Your task to perform on an android device: install app "ColorNote Notepad Notes" Image 0: 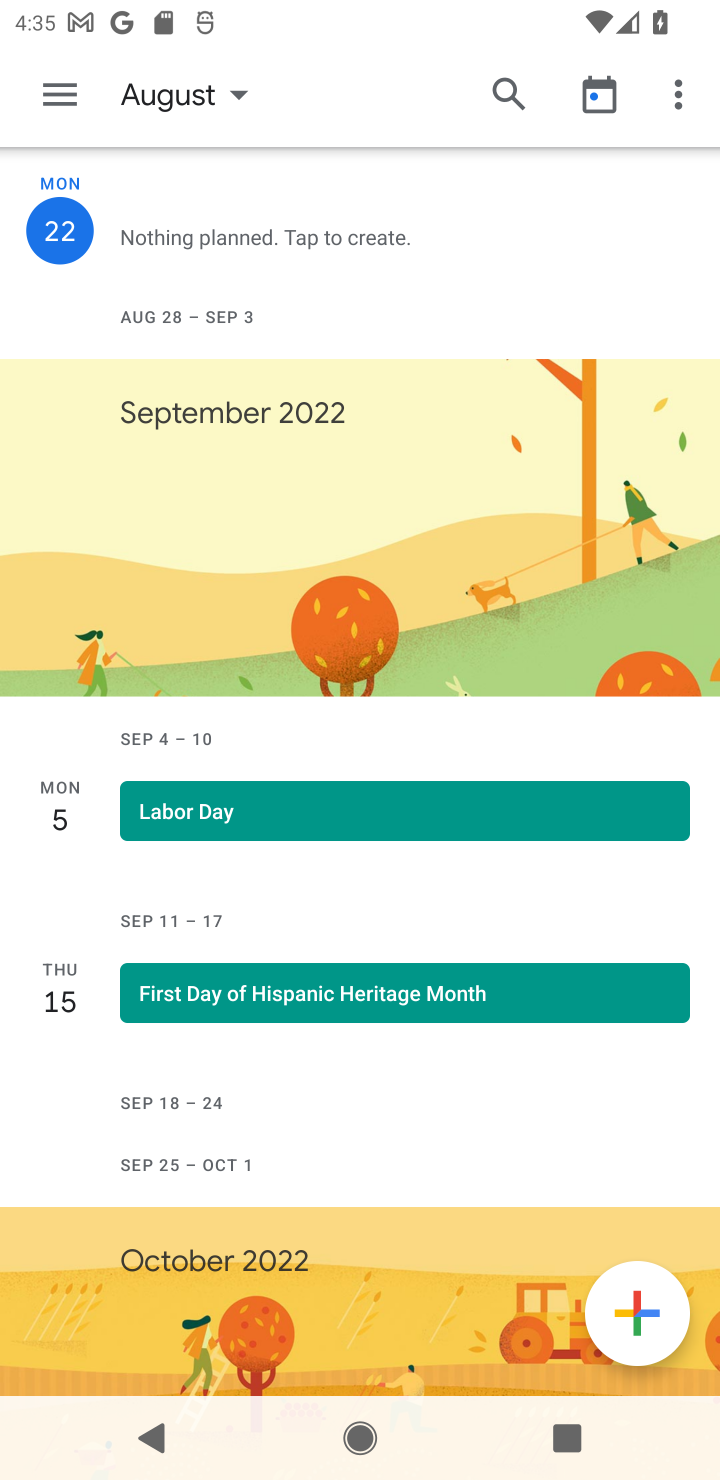
Step 0: press home button
Your task to perform on an android device: install app "ColorNote Notepad Notes" Image 1: 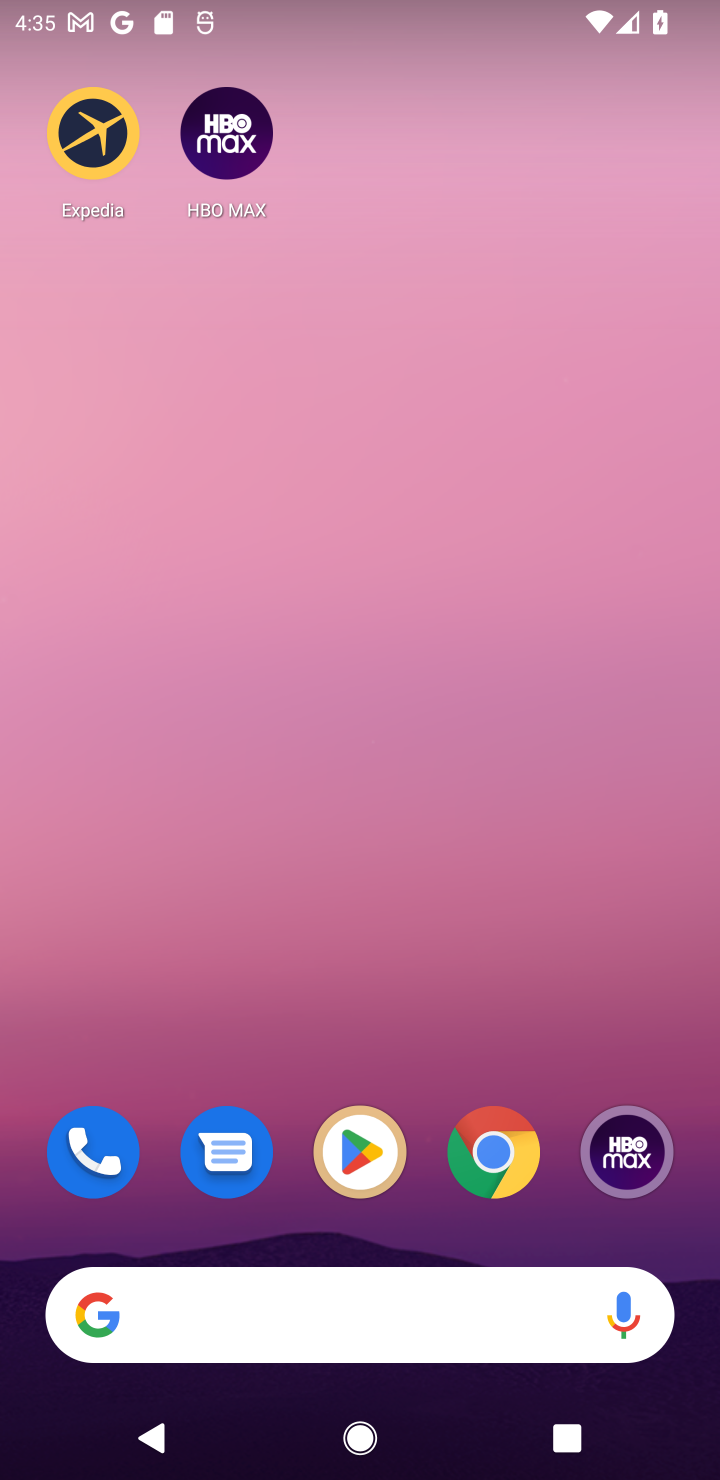
Step 1: click (337, 1172)
Your task to perform on an android device: install app "ColorNote Notepad Notes" Image 2: 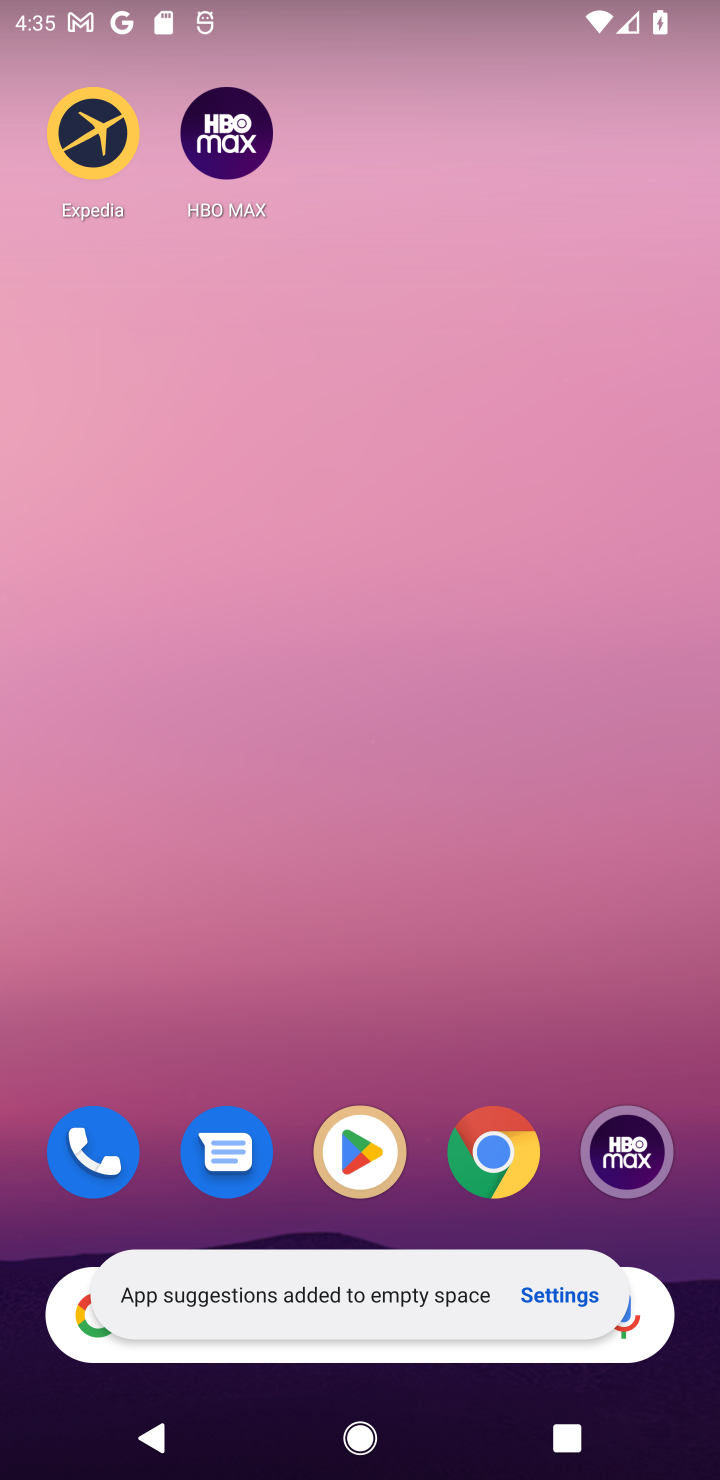
Step 2: click (376, 1160)
Your task to perform on an android device: install app "ColorNote Notepad Notes" Image 3: 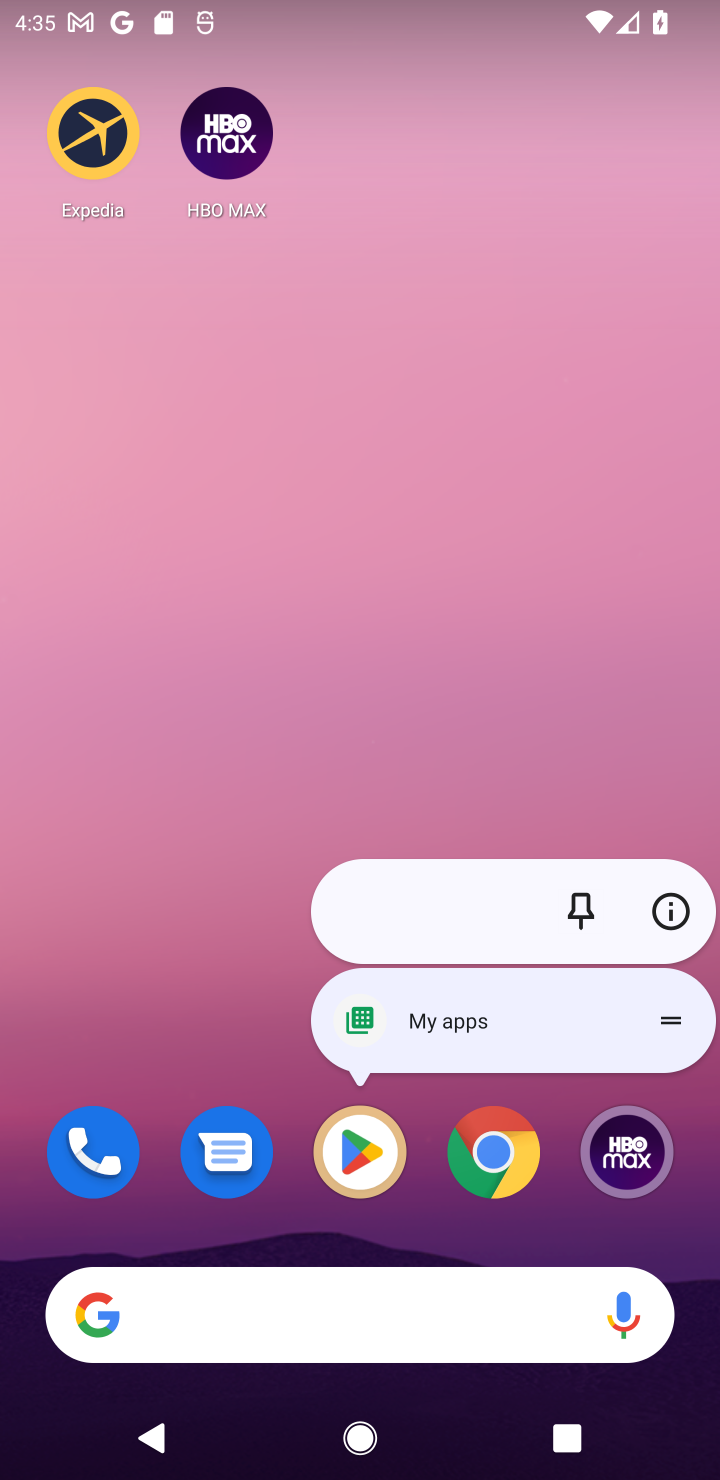
Step 3: click (408, 1160)
Your task to perform on an android device: install app "ColorNote Notepad Notes" Image 4: 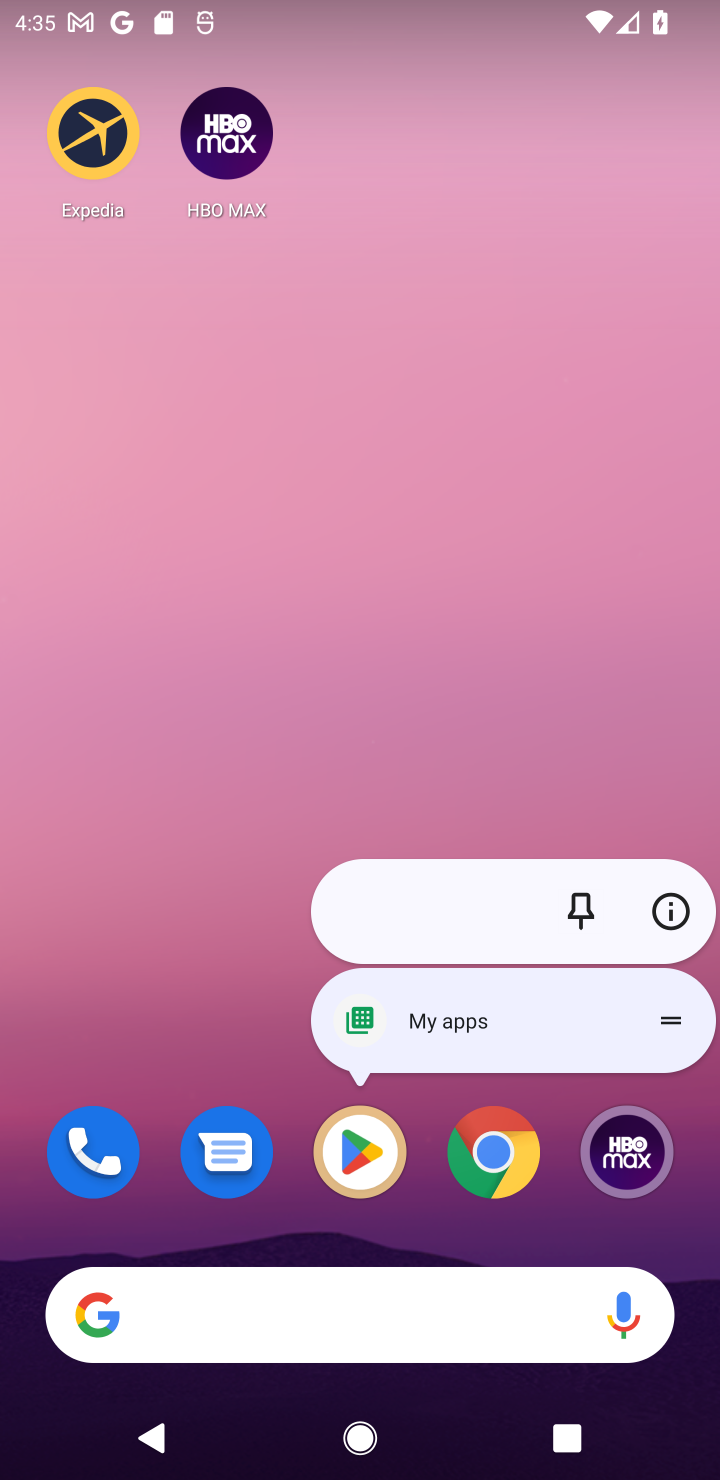
Step 4: click (372, 1182)
Your task to perform on an android device: install app "ColorNote Notepad Notes" Image 5: 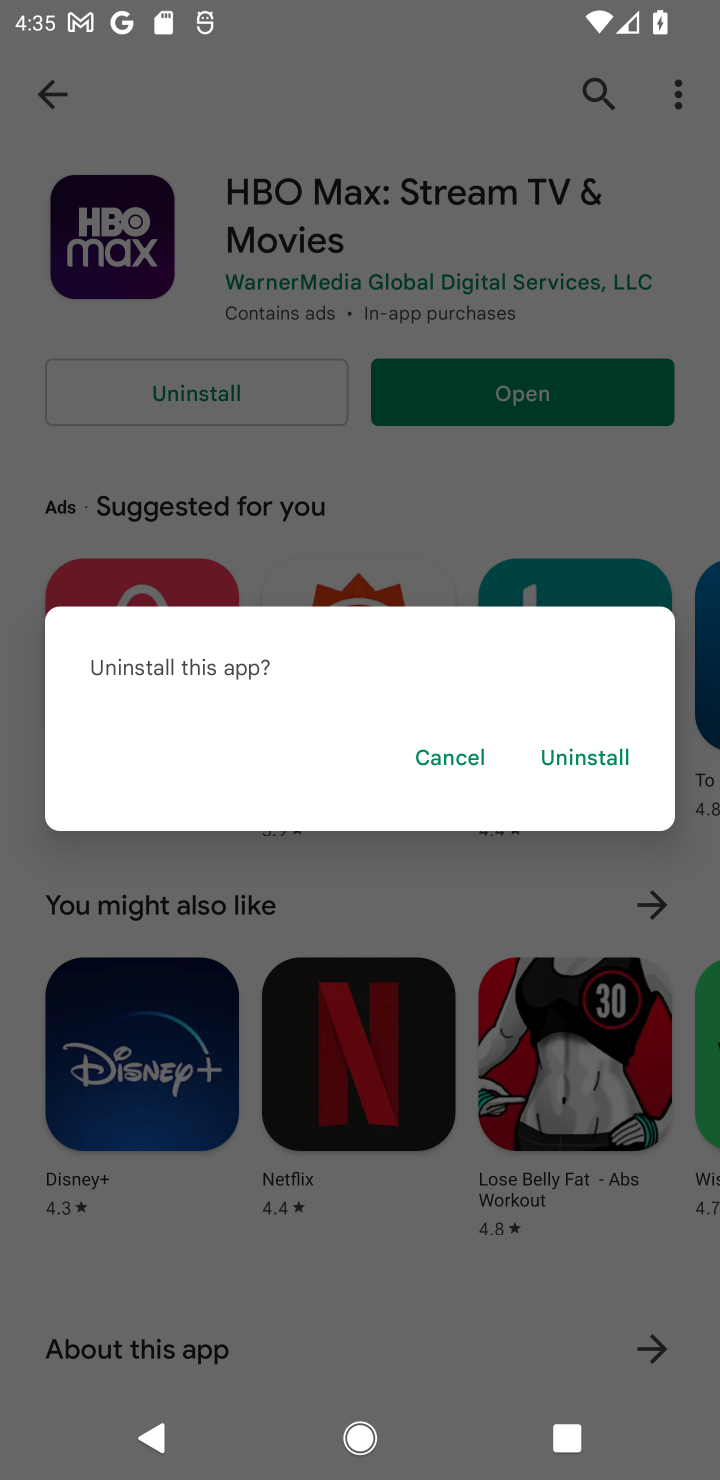
Step 5: click (454, 758)
Your task to perform on an android device: install app "ColorNote Notepad Notes" Image 6: 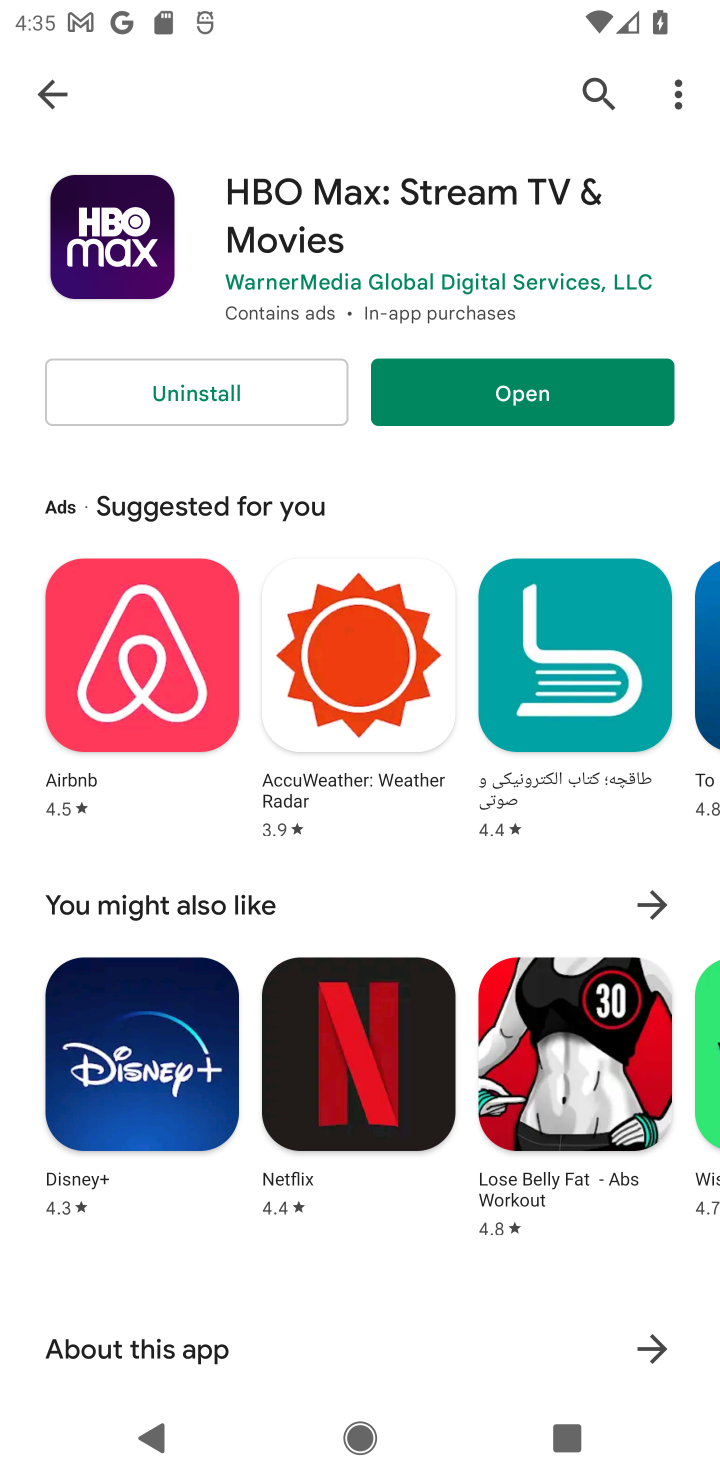
Step 6: click (36, 96)
Your task to perform on an android device: install app "ColorNote Notepad Notes" Image 7: 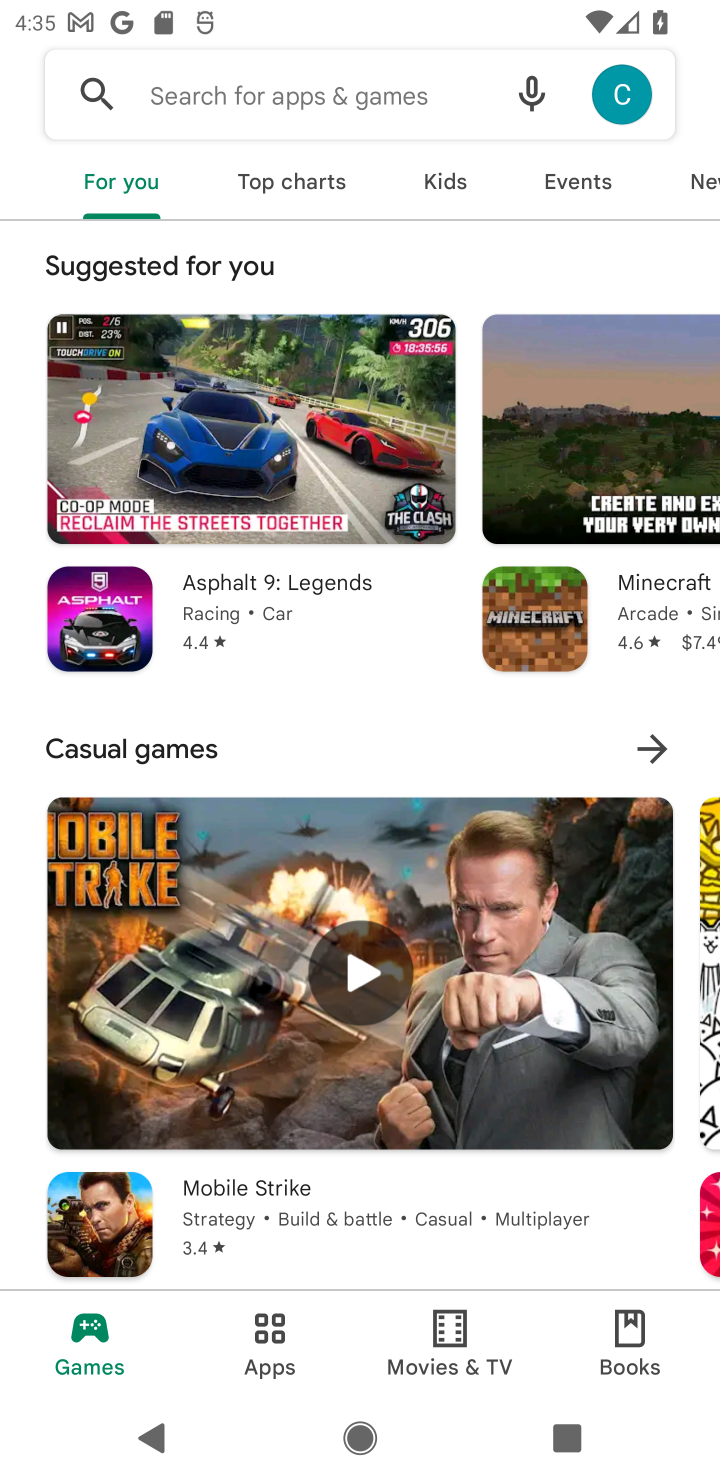
Step 7: click (147, 84)
Your task to perform on an android device: install app "ColorNote Notepad Notes" Image 8: 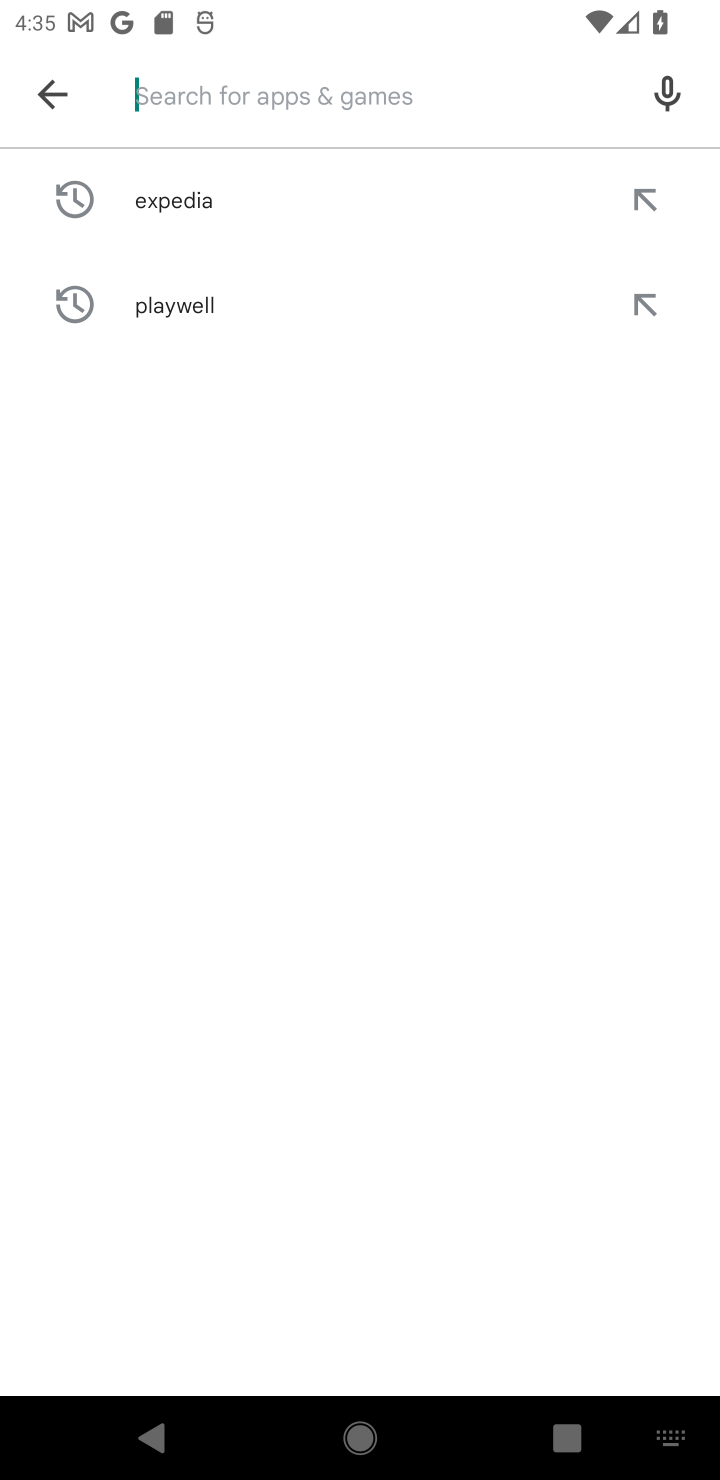
Step 8: type "ColorNote Notepad Notes"
Your task to perform on an android device: install app "ColorNote Notepad Notes" Image 9: 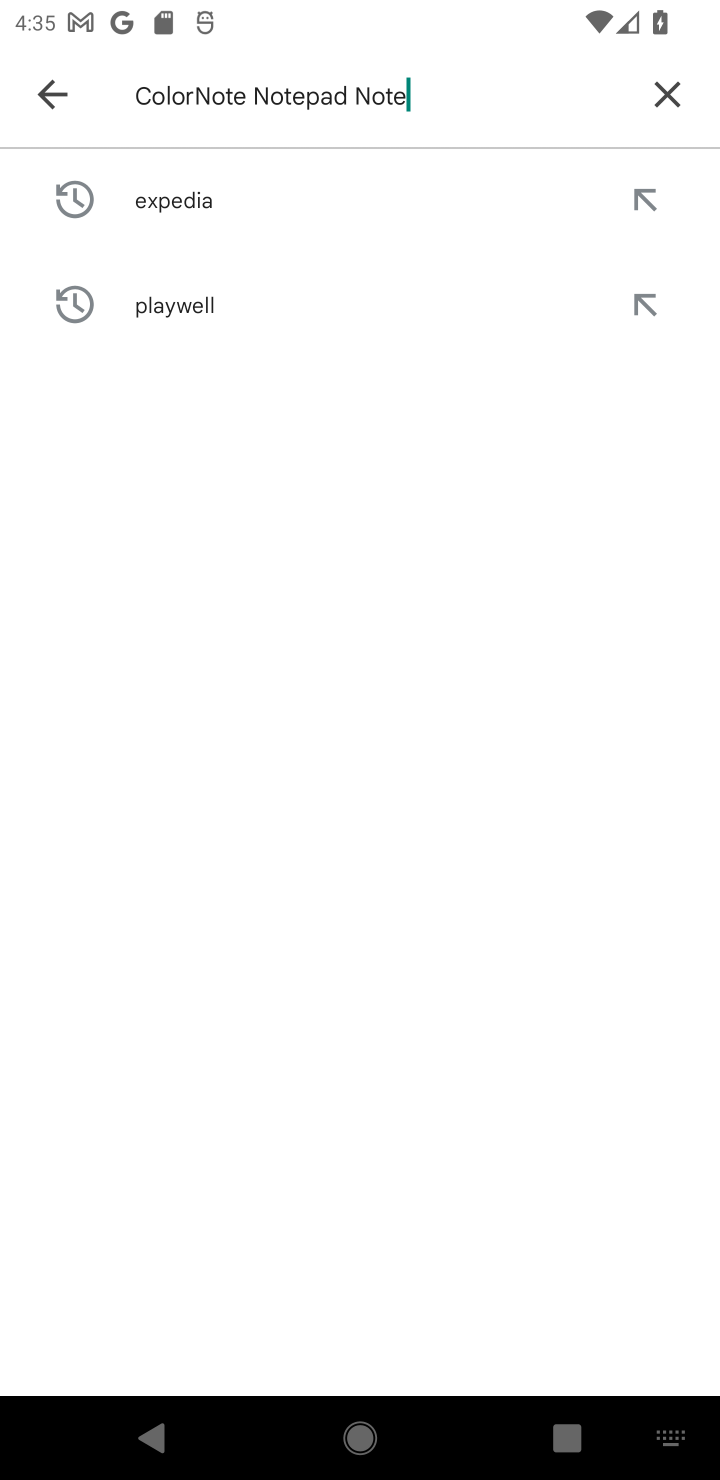
Step 9: type ""
Your task to perform on an android device: install app "ColorNote Notepad Notes" Image 10: 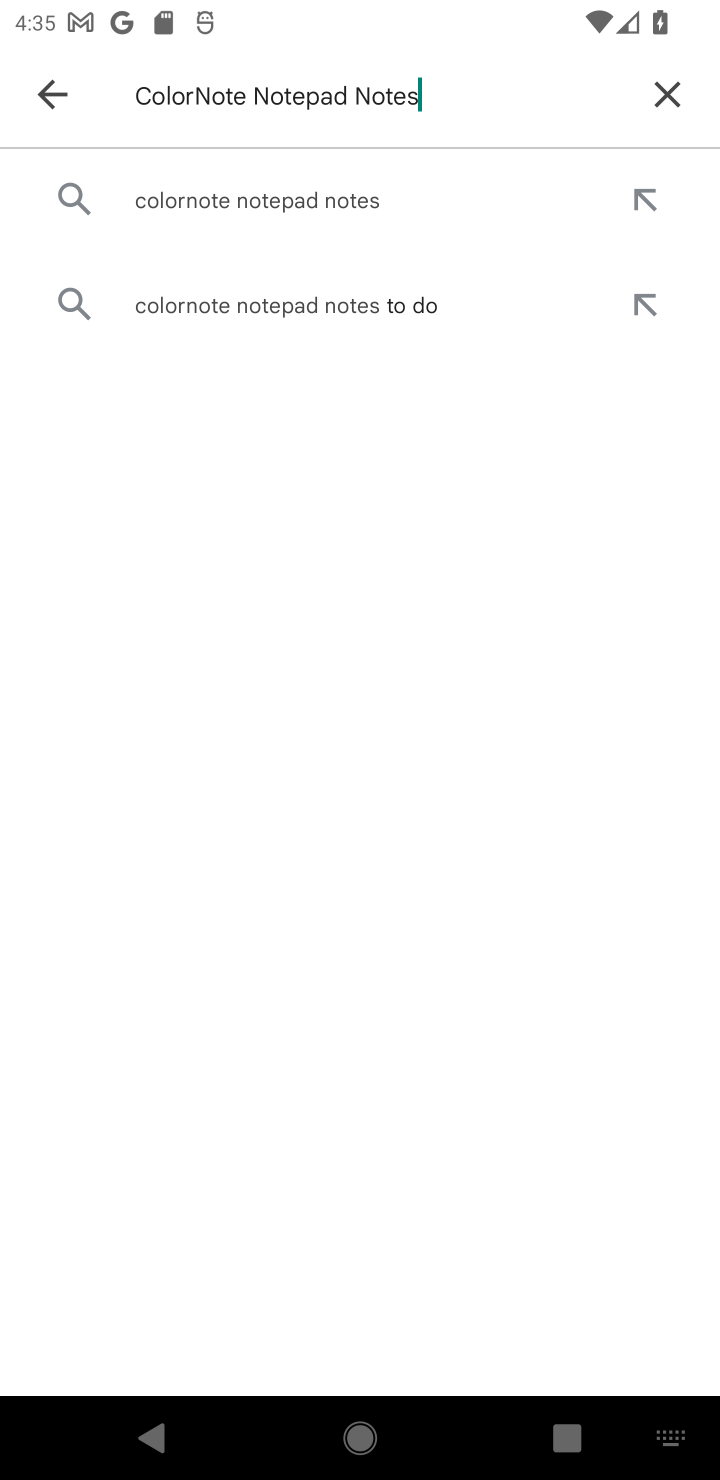
Step 10: click (254, 210)
Your task to perform on an android device: install app "ColorNote Notepad Notes" Image 11: 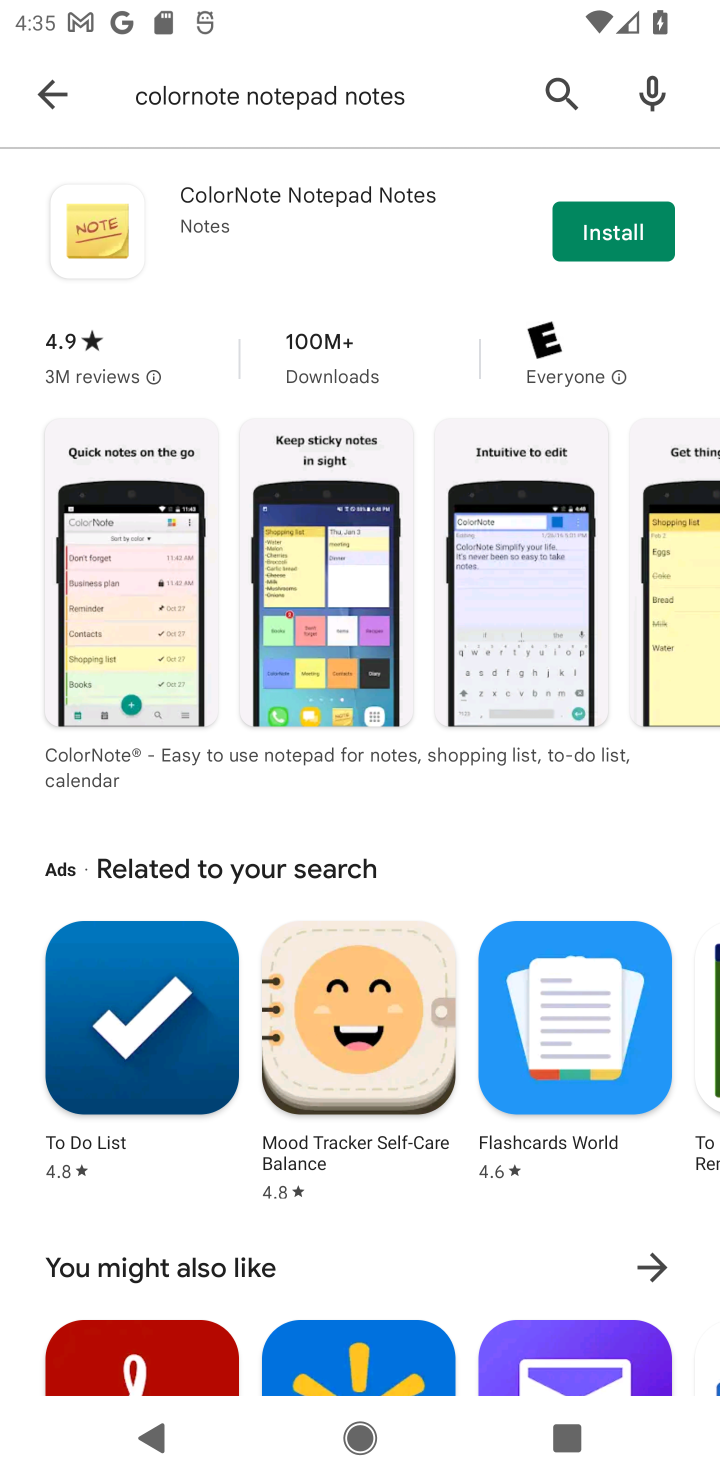
Step 11: click (114, 238)
Your task to perform on an android device: install app "ColorNote Notepad Notes" Image 12: 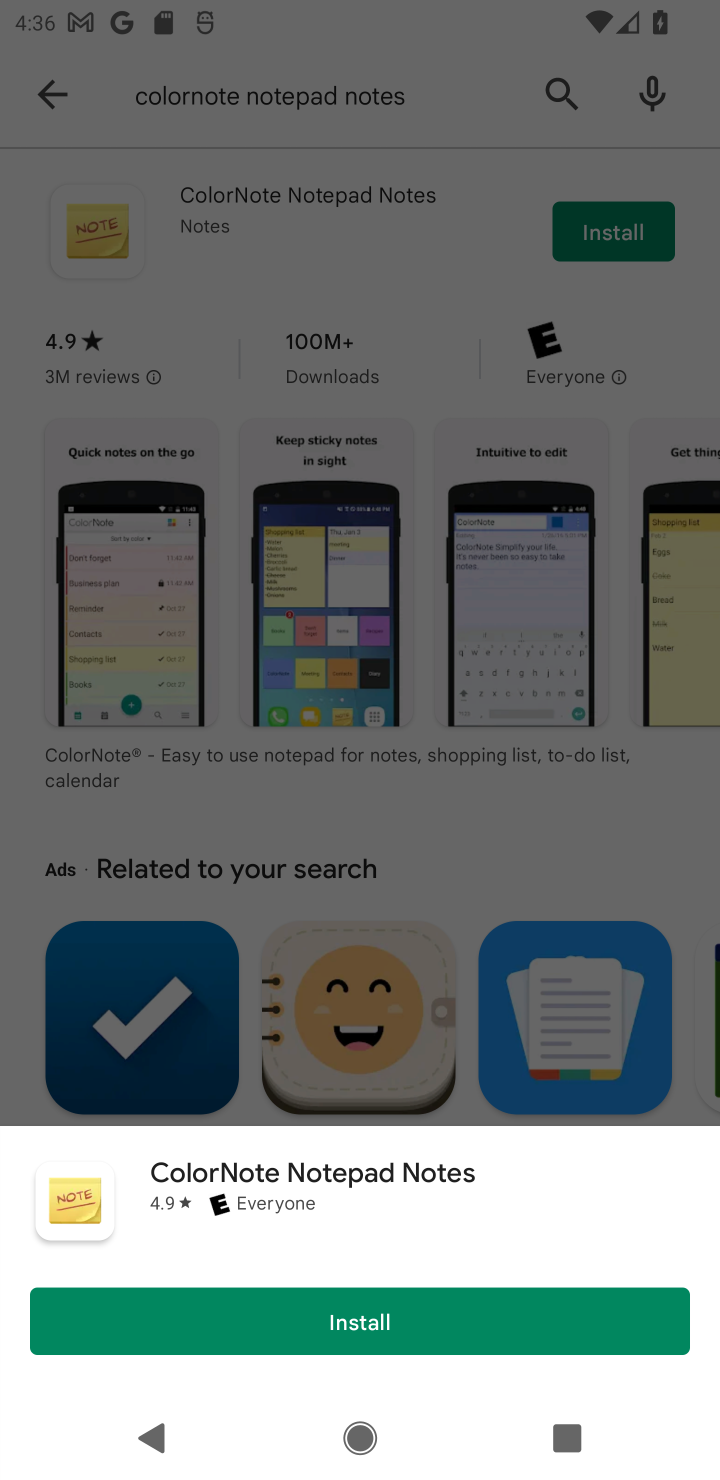
Step 12: click (399, 1343)
Your task to perform on an android device: install app "ColorNote Notepad Notes" Image 13: 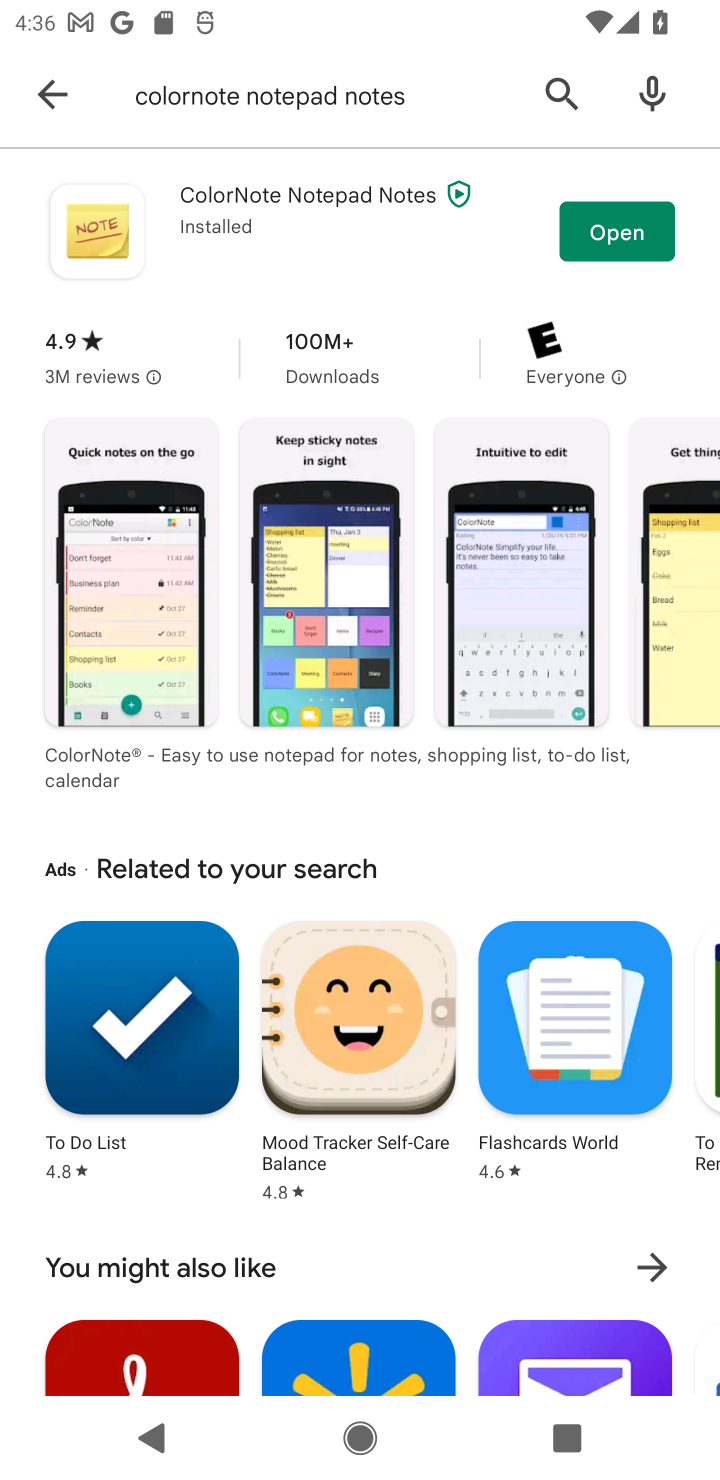
Step 13: click (648, 210)
Your task to perform on an android device: install app "ColorNote Notepad Notes" Image 14: 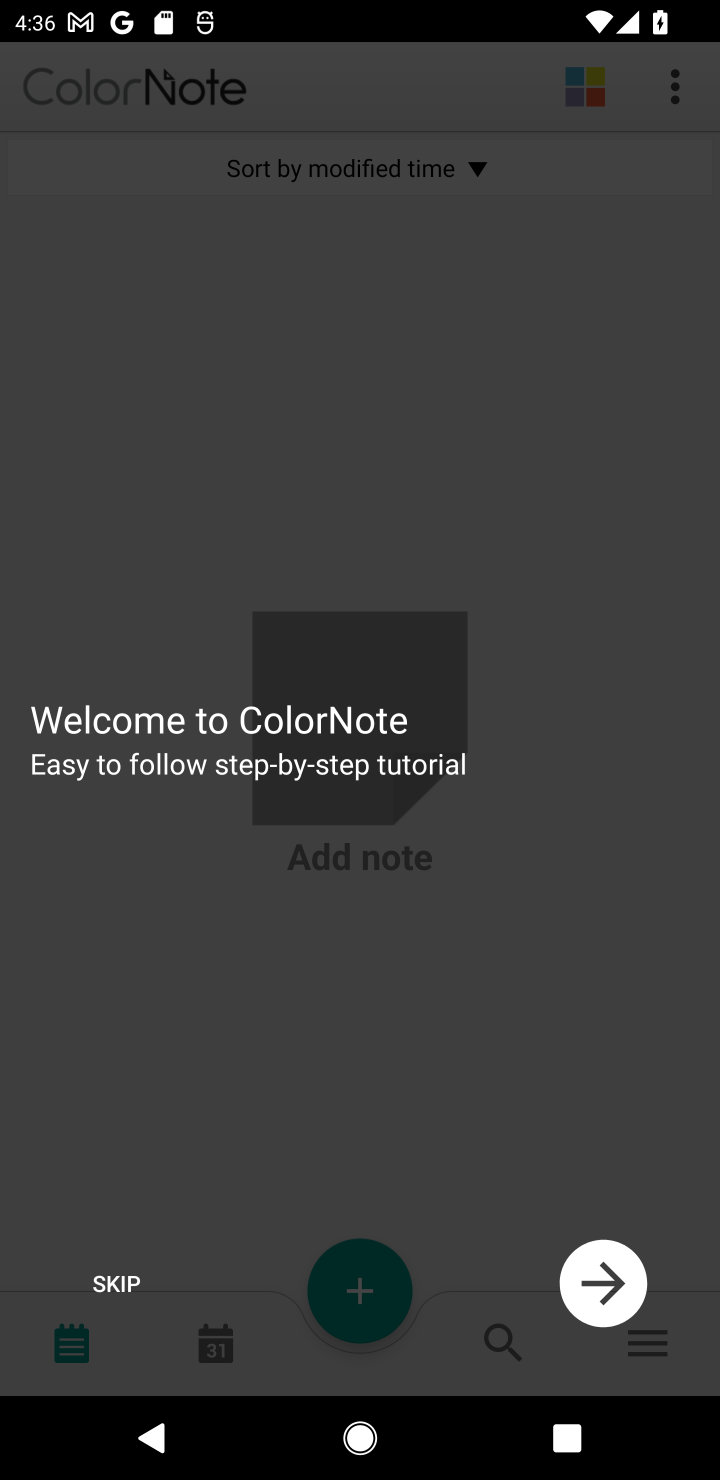
Step 14: task complete